Your task to perform on an android device: Go to ESPN.com Image 0: 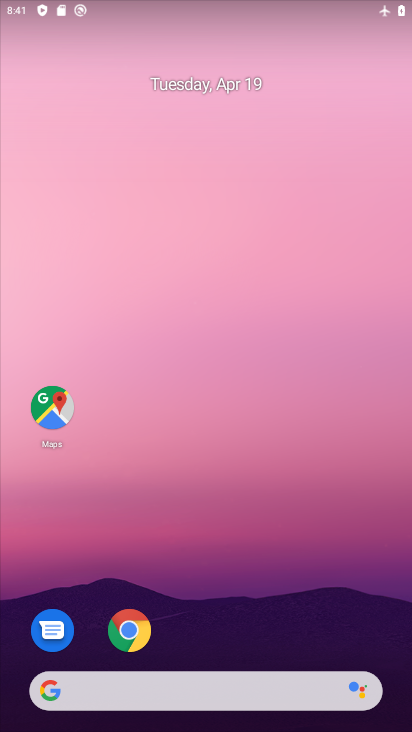
Step 0: drag from (242, 380) to (242, 514)
Your task to perform on an android device: Go to ESPN.com Image 1: 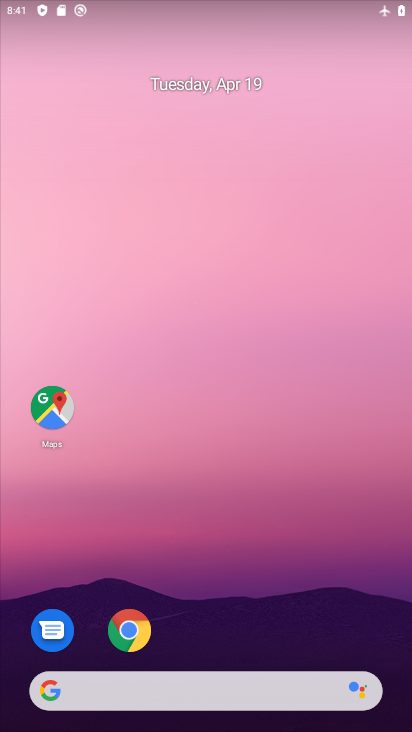
Step 1: drag from (289, 651) to (306, 134)
Your task to perform on an android device: Go to ESPN.com Image 2: 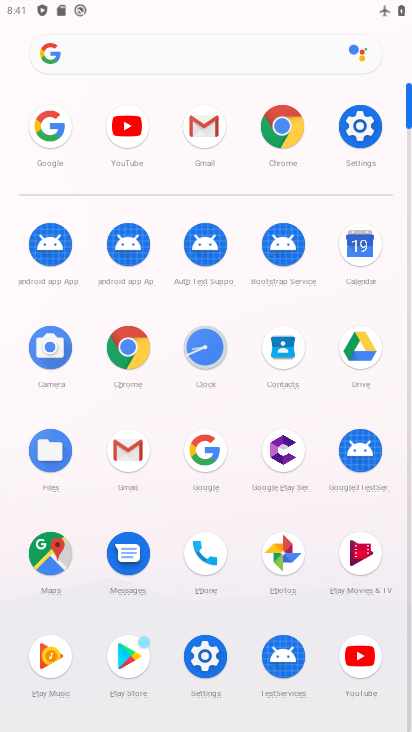
Step 2: click (308, 132)
Your task to perform on an android device: Go to ESPN.com Image 3: 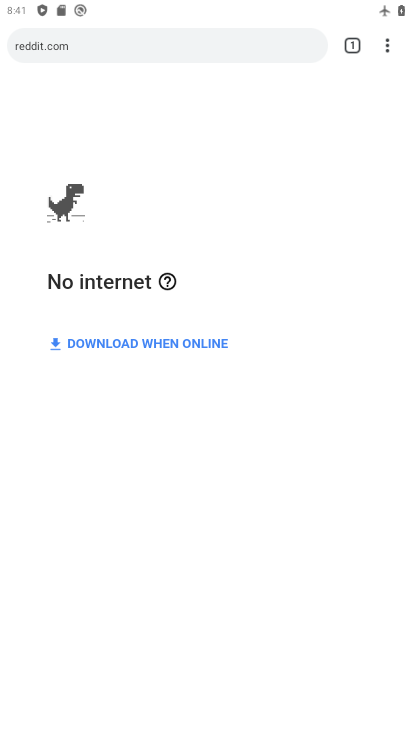
Step 3: task complete